Your task to perform on an android device: change the upload size in google photos Image 0: 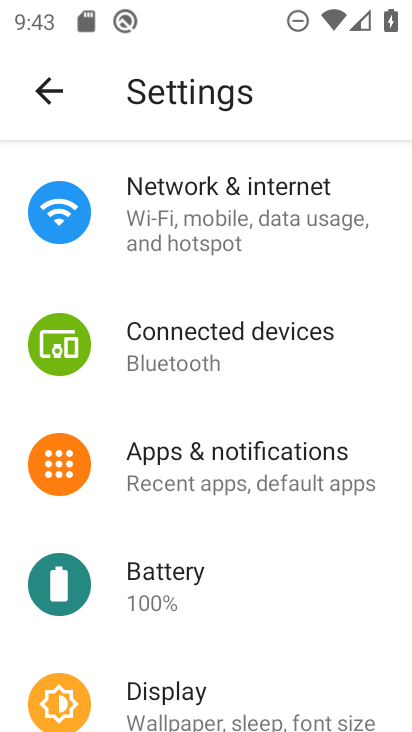
Step 0: press home button
Your task to perform on an android device: change the upload size in google photos Image 1: 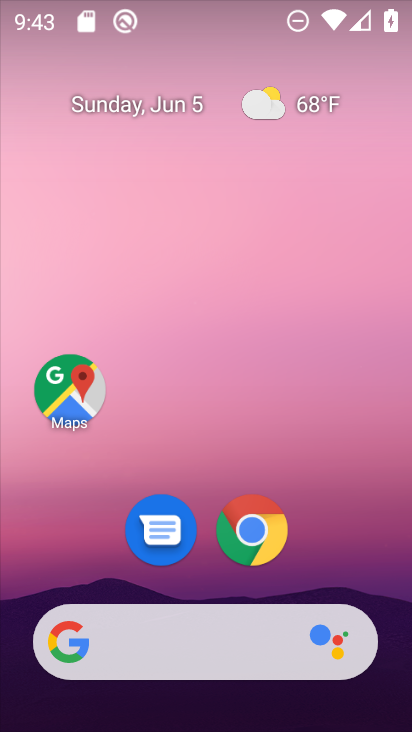
Step 1: drag from (402, 634) to (334, 195)
Your task to perform on an android device: change the upload size in google photos Image 2: 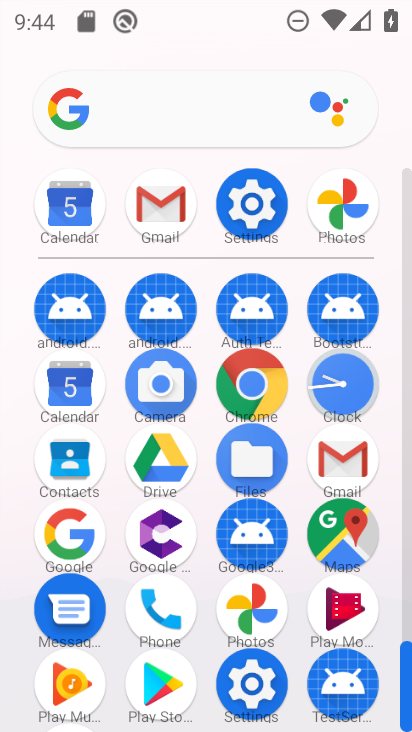
Step 2: click (252, 608)
Your task to perform on an android device: change the upload size in google photos Image 3: 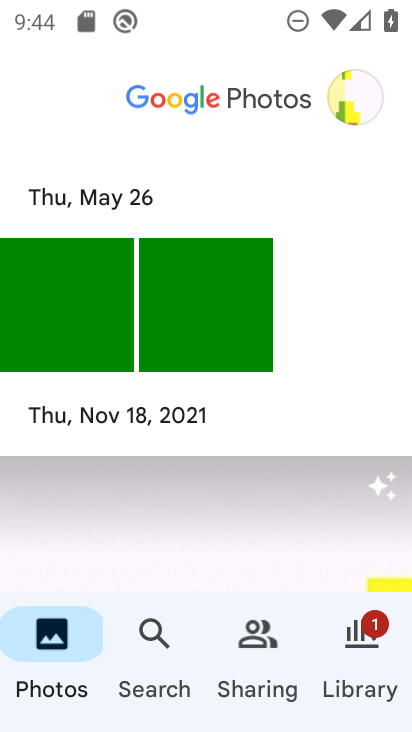
Step 3: click (356, 105)
Your task to perform on an android device: change the upload size in google photos Image 4: 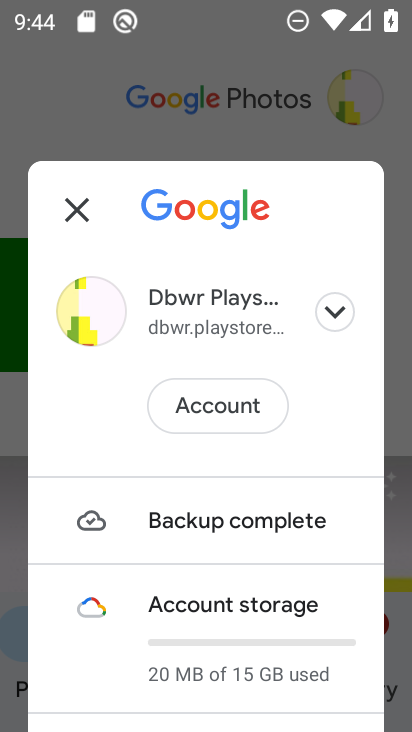
Step 4: drag from (254, 622) to (248, 204)
Your task to perform on an android device: change the upload size in google photos Image 5: 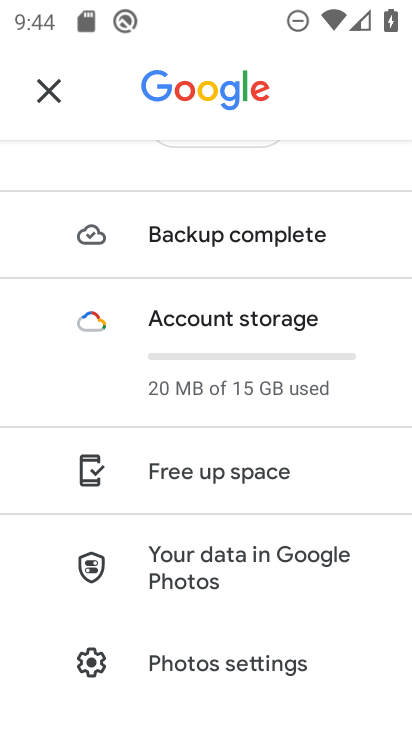
Step 5: drag from (213, 640) to (222, 229)
Your task to perform on an android device: change the upload size in google photos Image 6: 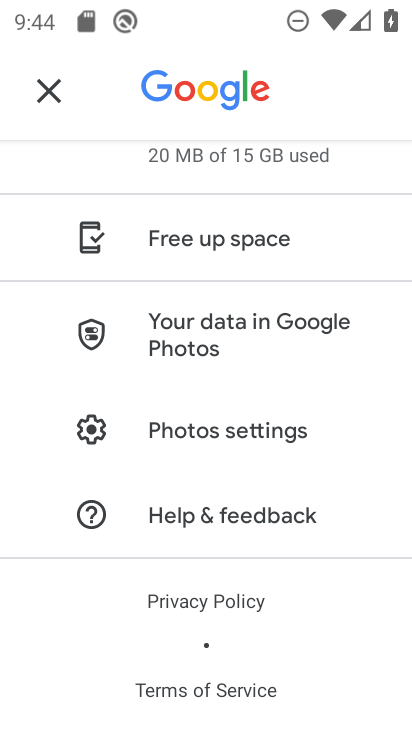
Step 6: click (183, 437)
Your task to perform on an android device: change the upload size in google photos Image 7: 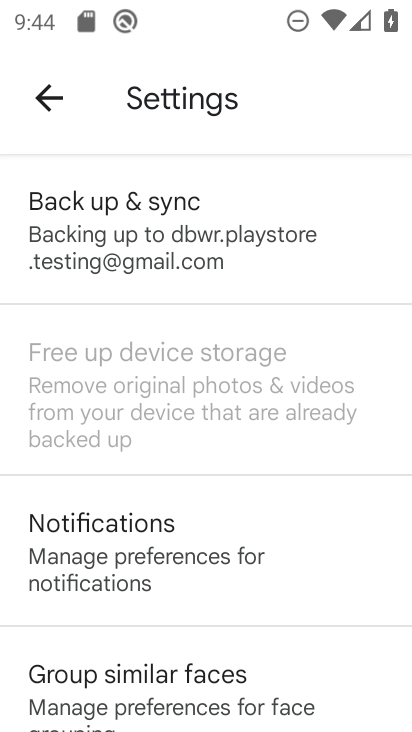
Step 7: click (124, 234)
Your task to perform on an android device: change the upload size in google photos Image 8: 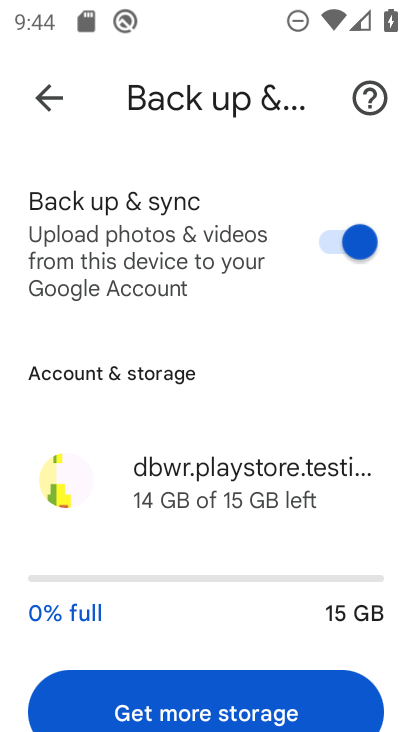
Step 8: drag from (197, 612) to (188, 204)
Your task to perform on an android device: change the upload size in google photos Image 9: 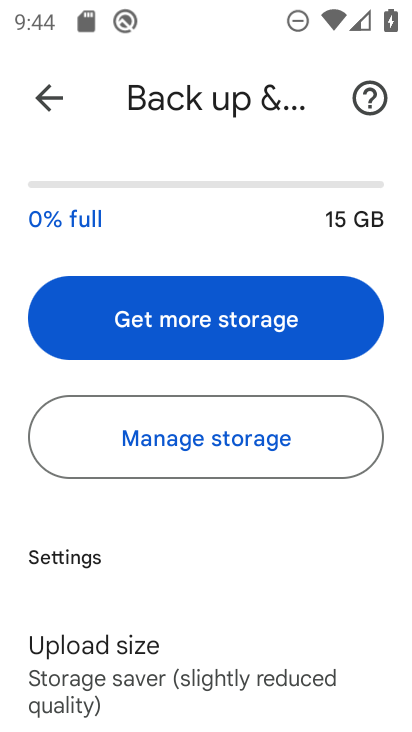
Step 9: drag from (189, 598) to (161, 267)
Your task to perform on an android device: change the upload size in google photos Image 10: 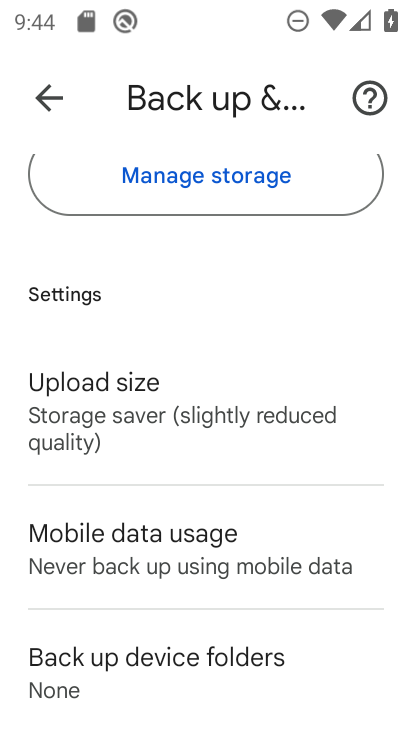
Step 10: click (107, 411)
Your task to perform on an android device: change the upload size in google photos Image 11: 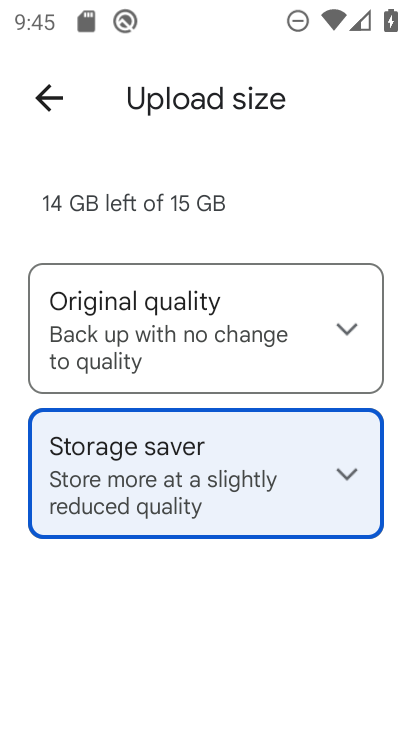
Step 11: click (201, 307)
Your task to perform on an android device: change the upload size in google photos Image 12: 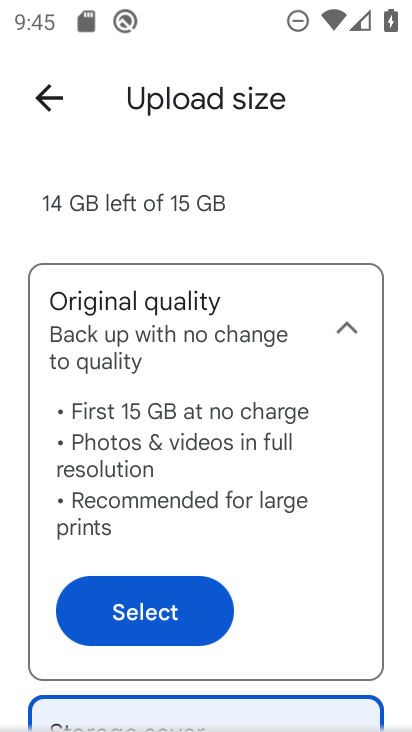
Step 12: click (134, 622)
Your task to perform on an android device: change the upload size in google photos Image 13: 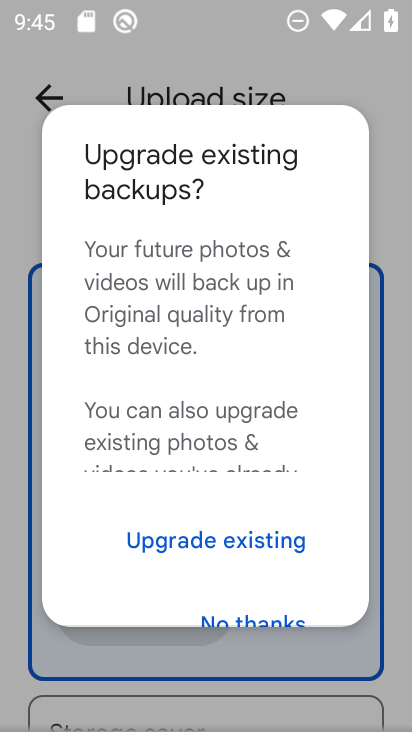
Step 13: click (281, 616)
Your task to perform on an android device: change the upload size in google photos Image 14: 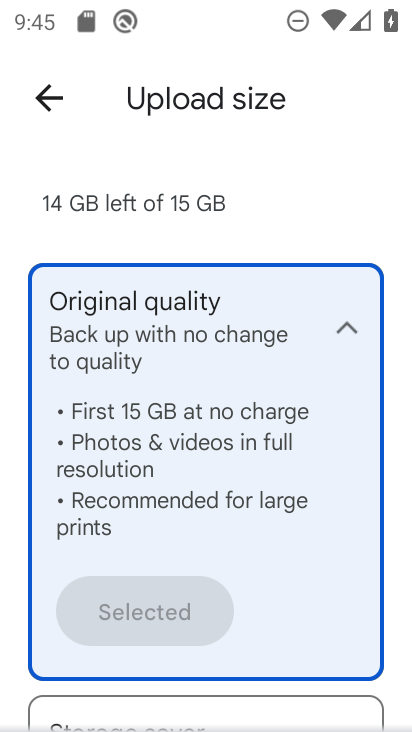
Step 14: task complete